Your task to perform on an android device: Go to eBay Image 0: 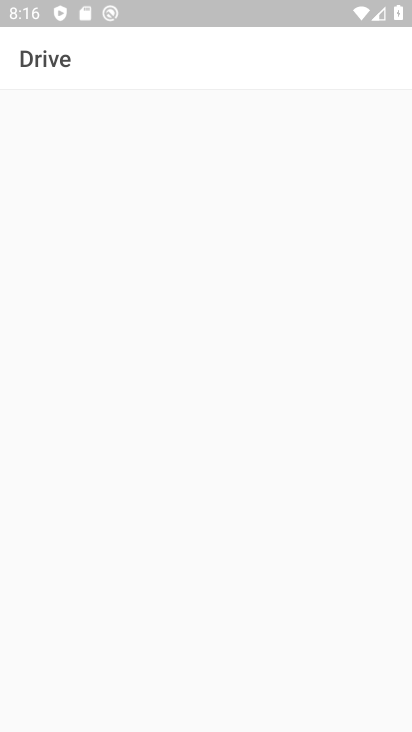
Step 0: press home button
Your task to perform on an android device: Go to eBay Image 1: 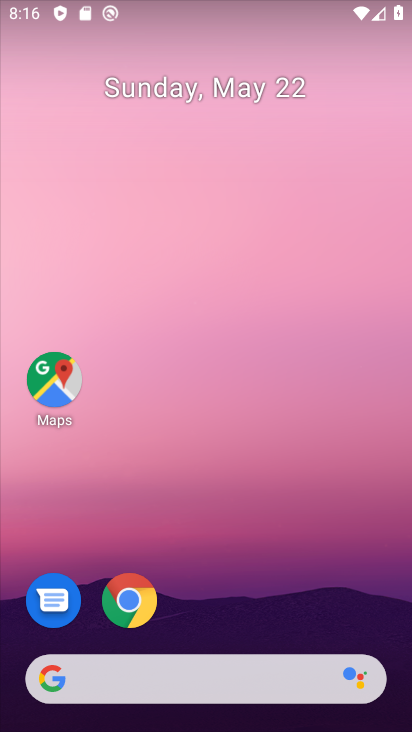
Step 1: click (142, 600)
Your task to perform on an android device: Go to eBay Image 2: 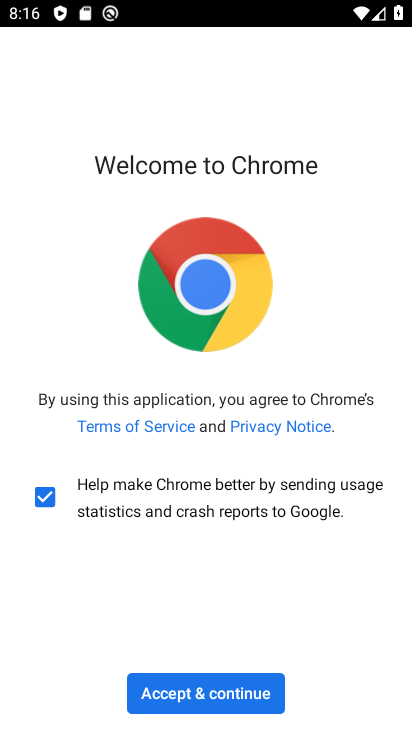
Step 2: click (188, 701)
Your task to perform on an android device: Go to eBay Image 3: 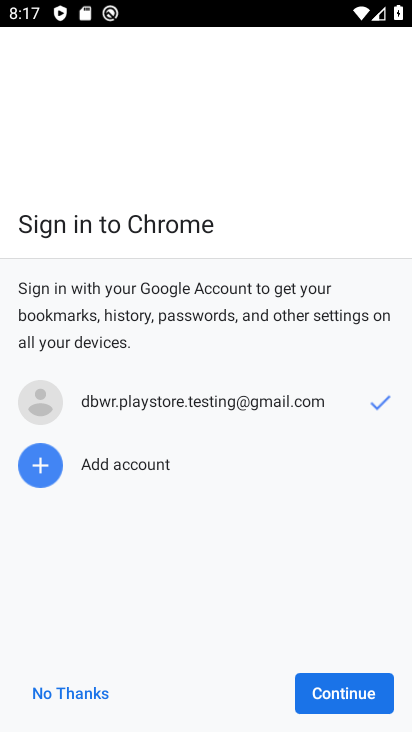
Step 3: click (333, 704)
Your task to perform on an android device: Go to eBay Image 4: 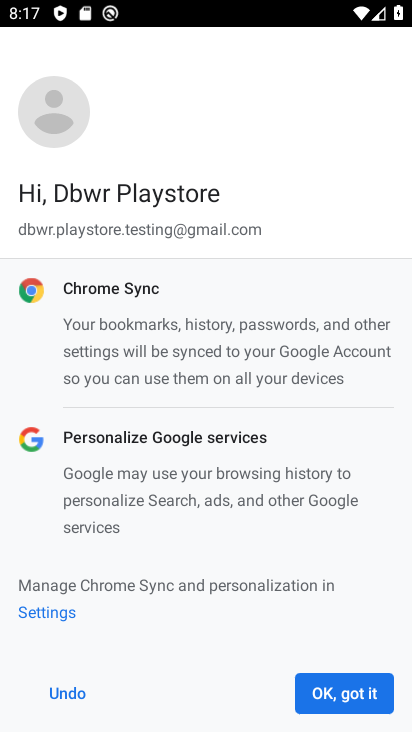
Step 4: click (337, 706)
Your task to perform on an android device: Go to eBay Image 5: 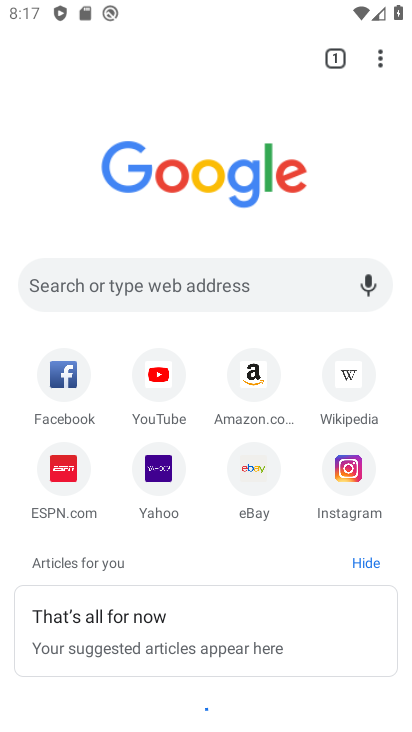
Step 5: click (265, 485)
Your task to perform on an android device: Go to eBay Image 6: 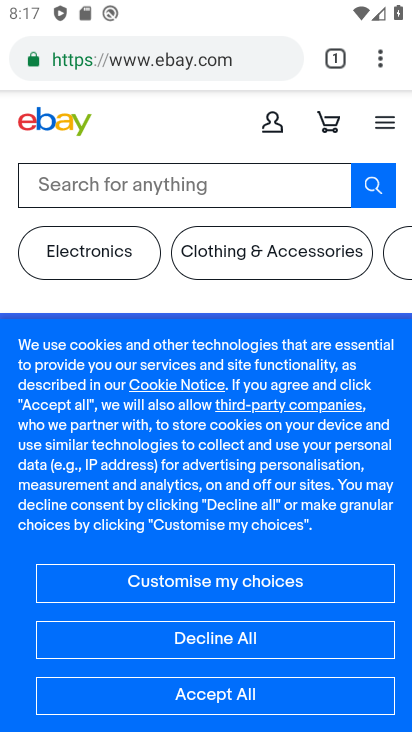
Step 6: task complete